Your task to perform on an android device: Turn off the flashlight Image 0: 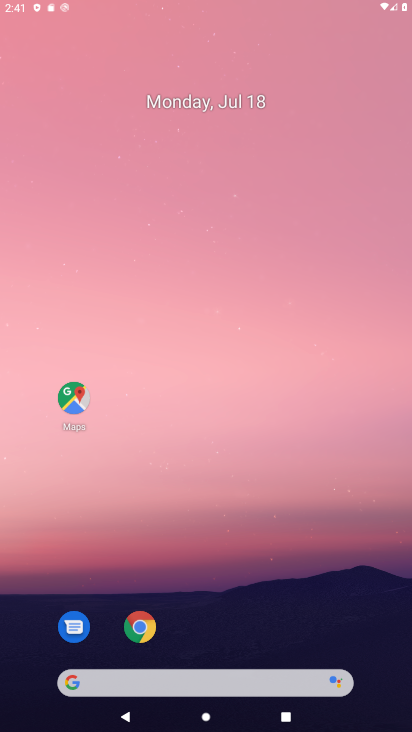
Step 0: click (295, 23)
Your task to perform on an android device: Turn off the flashlight Image 1: 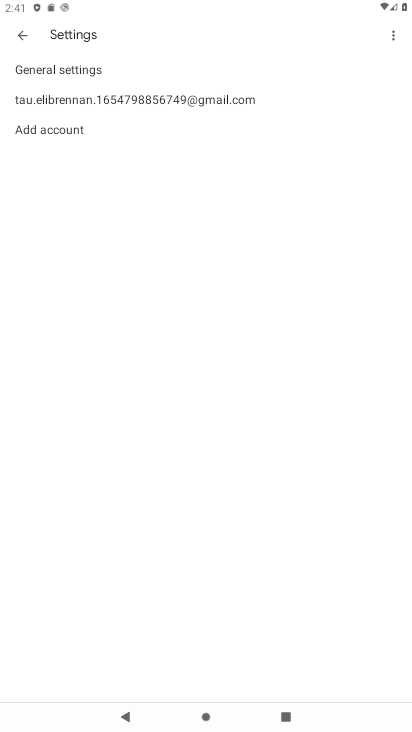
Step 1: press home button
Your task to perform on an android device: Turn off the flashlight Image 2: 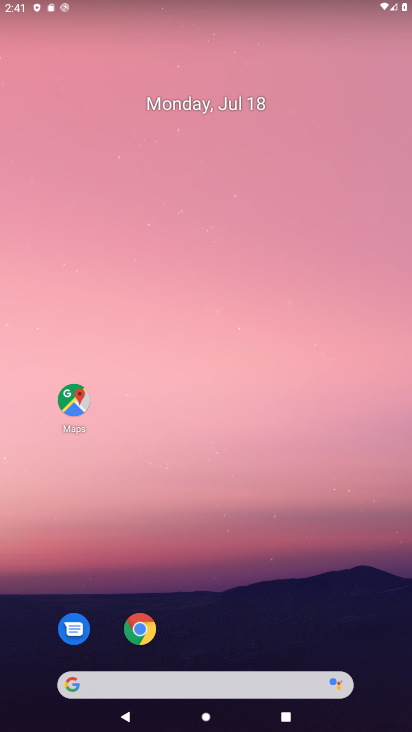
Step 2: drag from (203, 607) to (190, 133)
Your task to perform on an android device: Turn off the flashlight Image 3: 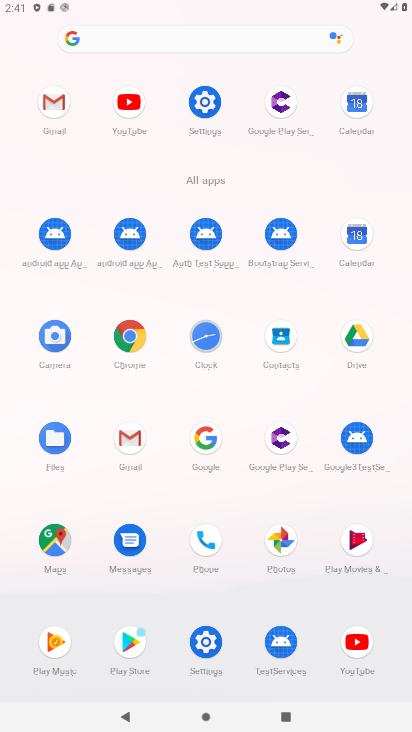
Step 3: click (211, 656)
Your task to perform on an android device: Turn off the flashlight Image 4: 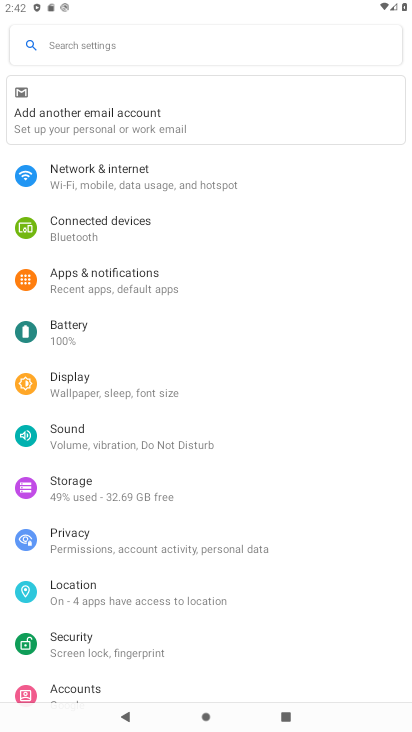
Step 4: click (223, 37)
Your task to perform on an android device: Turn off the flashlight Image 5: 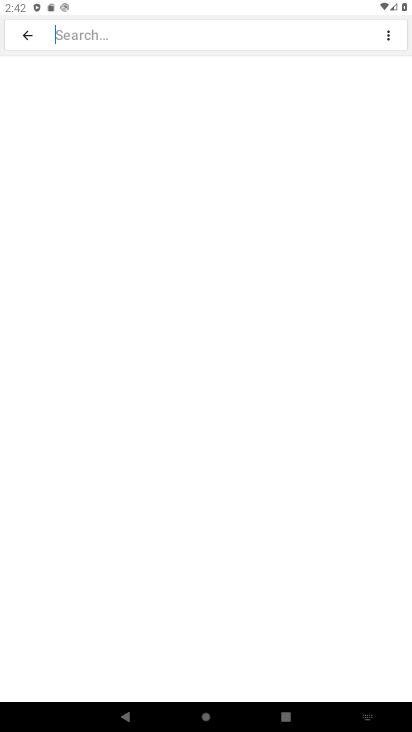
Step 5: type "flashlight"
Your task to perform on an android device: Turn off the flashlight Image 6: 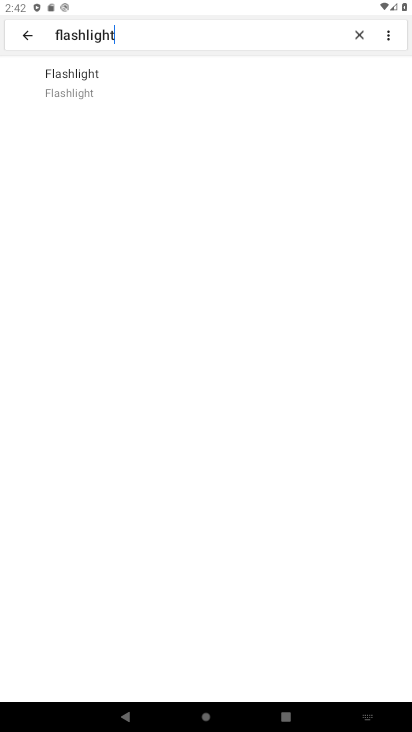
Step 6: click (75, 125)
Your task to perform on an android device: Turn off the flashlight Image 7: 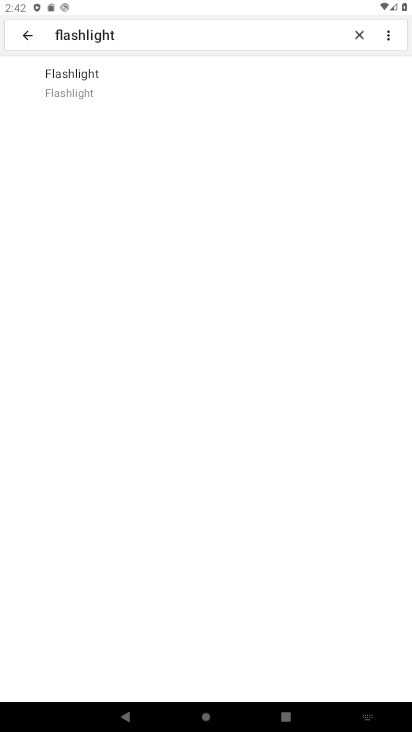
Step 7: click (144, 74)
Your task to perform on an android device: Turn off the flashlight Image 8: 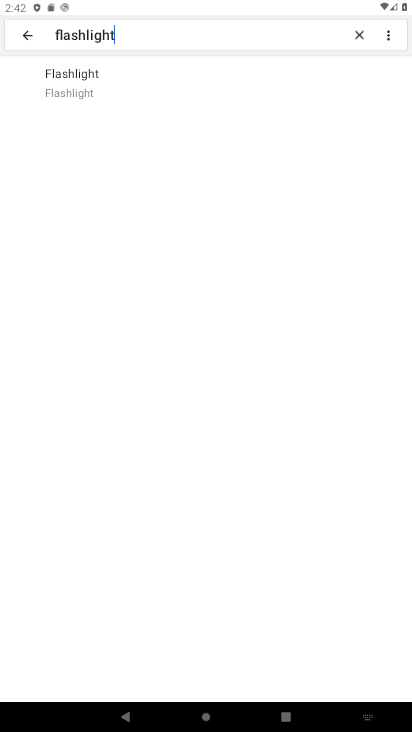
Step 8: click (97, 68)
Your task to perform on an android device: Turn off the flashlight Image 9: 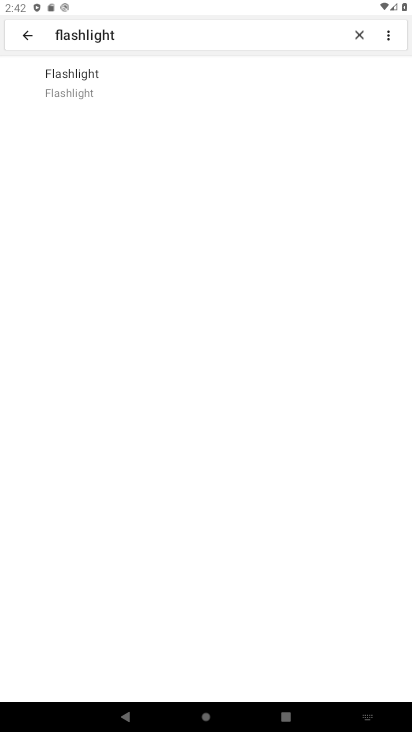
Step 9: task complete